Your task to perform on an android device: Turn on the flashlight Image 0: 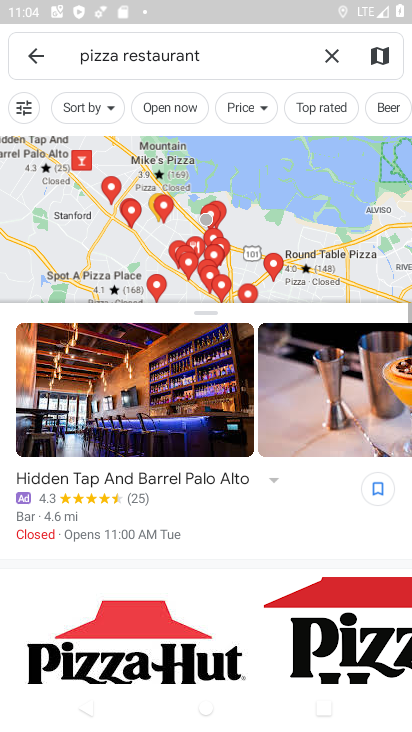
Step 0: drag from (156, 635) to (249, 130)
Your task to perform on an android device: Turn on the flashlight Image 1: 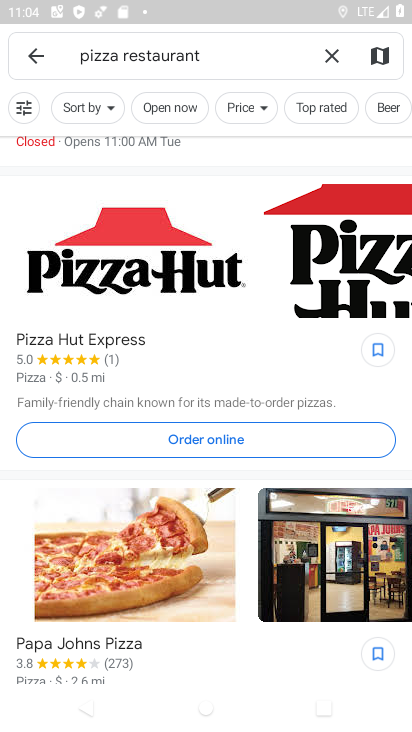
Step 1: task complete